Your task to perform on an android device: check google app version Image 0: 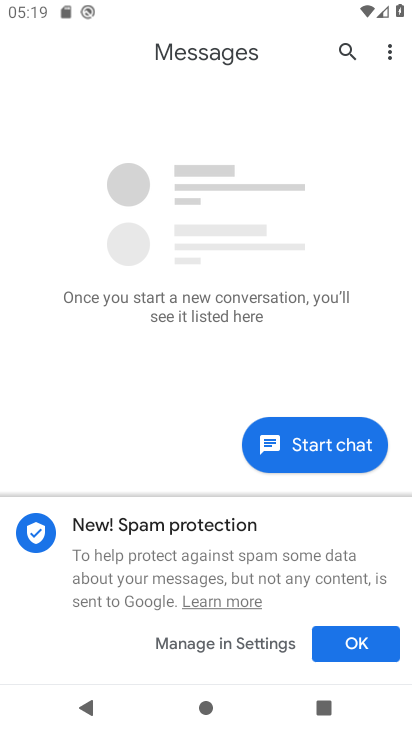
Step 0: press home button
Your task to perform on an android device: check google app version Image 1: 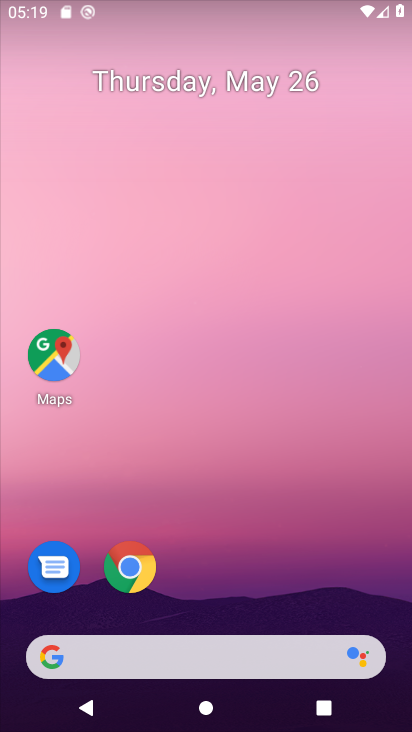
Step 1: drag from (324, 538) to (341, 108)
Your task to perform on an android device: check google app version Image 2: 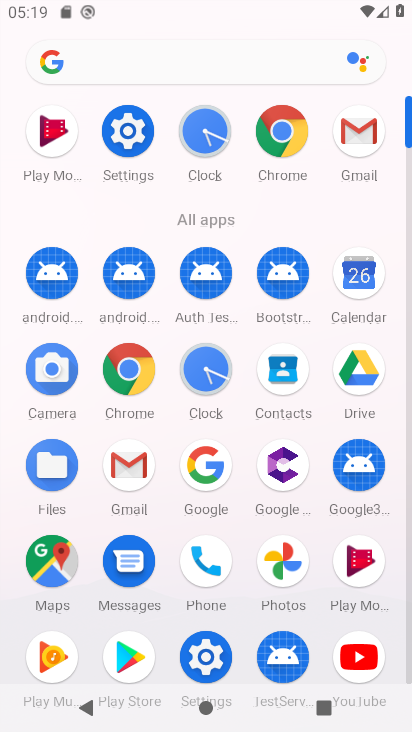
Step 2: click (207, 477)
Your task to perform on an android device: check google app version Image 3: 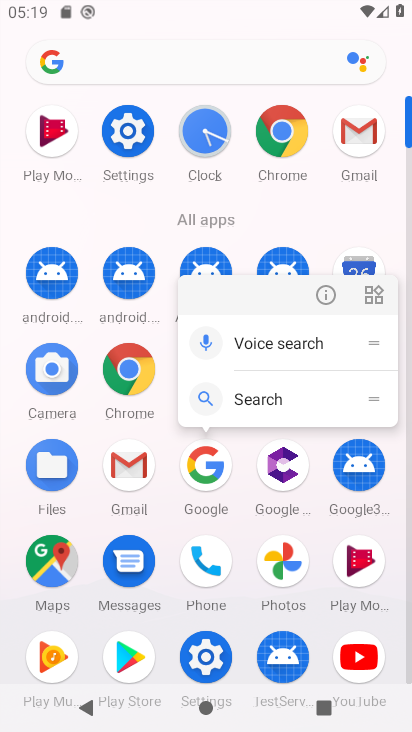
Step 3: click (319, 293)
Your task to perform on an android device: check google app version Image 4: 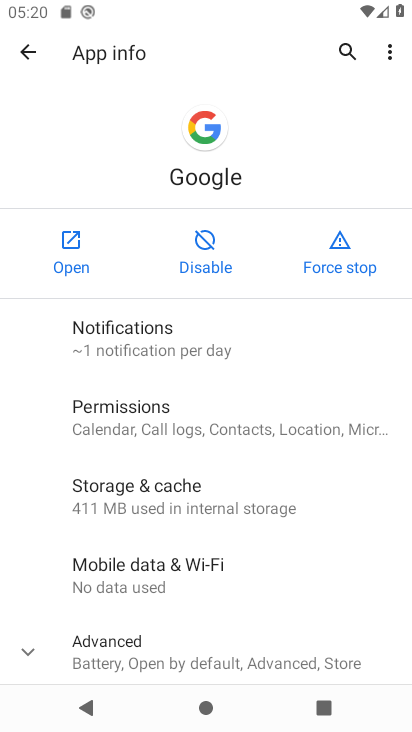
Step 4: drag from (312, 632) to (293, 82)
Your task to perform on an android device: check google app version Image 5: 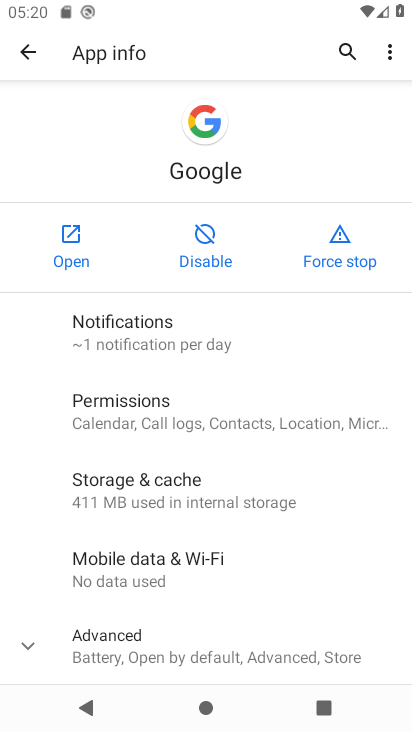
Step 5: click (26, 651)
Your task to perform on an android device: check google app version Image 6: 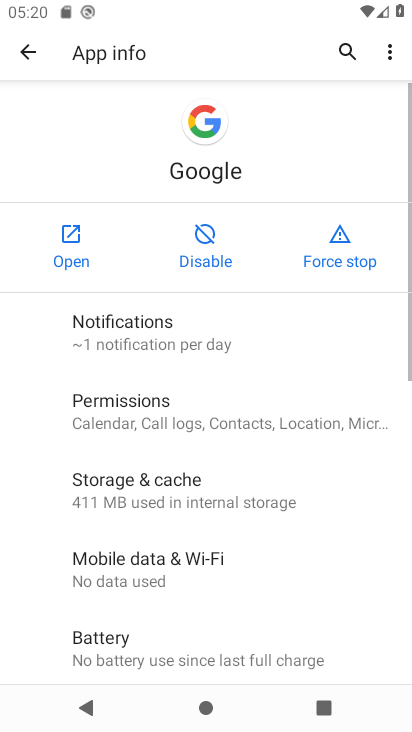
Step 6: task complete